Your task to perform on an android device: toggle translation in the chrome app Image 0: 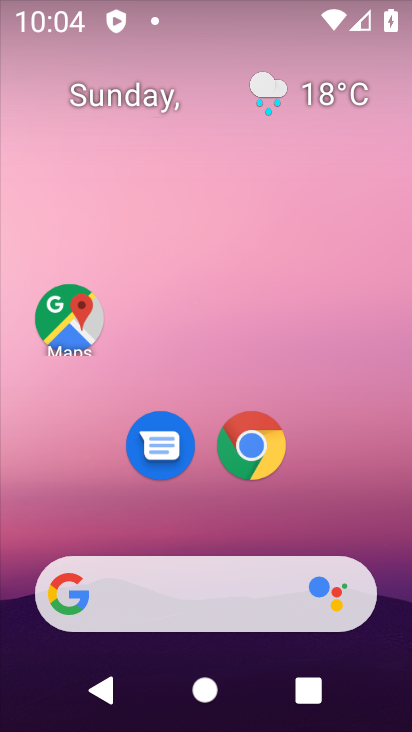
Step 0: click (244, 440)
Your task to perform on an android device: toggle translation in the chrome app Image 1: 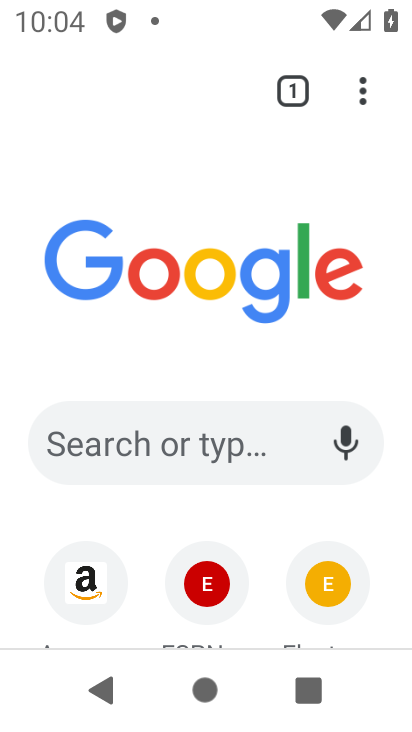
Step 1: click (367, 80)
Your task to perform on an android device: toggle translation in the chrome app Image 2: 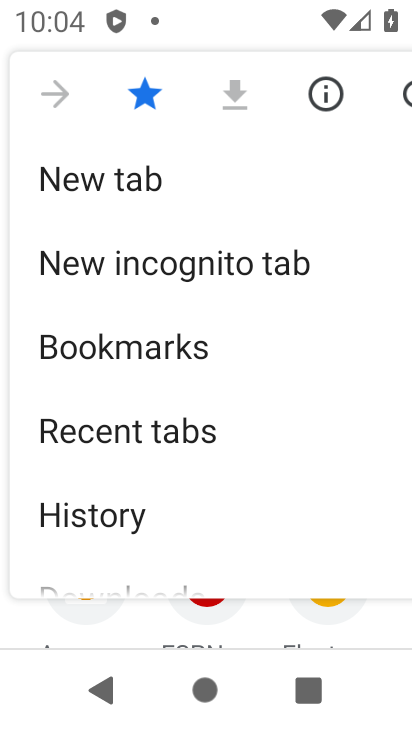
Step 2: drag from (240, 529) to (311, 144)
Your task to perform on an android device: toggle translation in the chrome app Image 3: 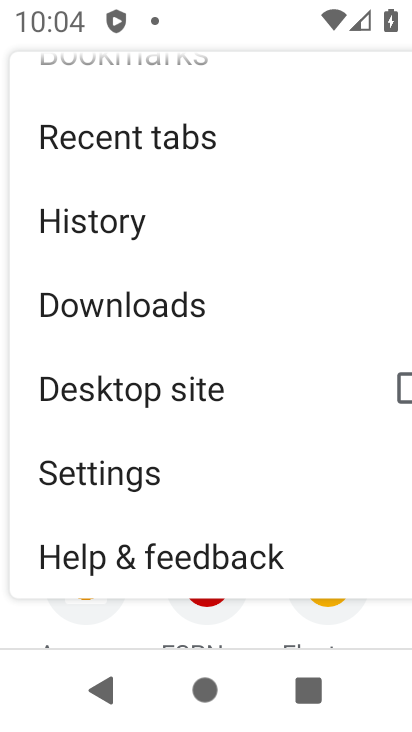
Step 3: click (177, 466)
Your task to perform on an android device: toggle translation in the chrome app Image 4: 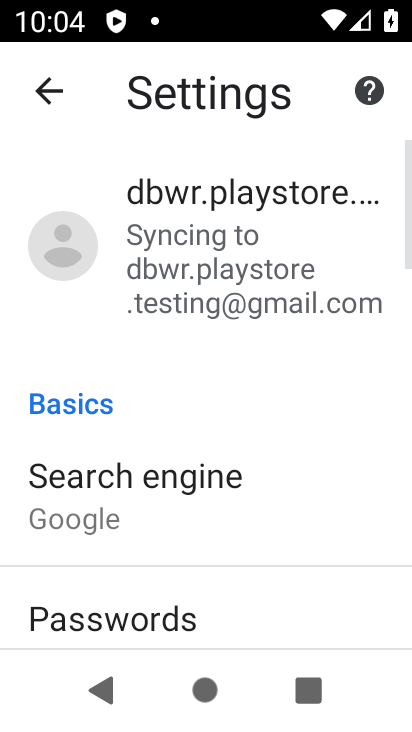
Step 4: drag from (241, 613) to (290, 183)
Your task to perform on an android device: toggle translation in the chrome app Image 5: 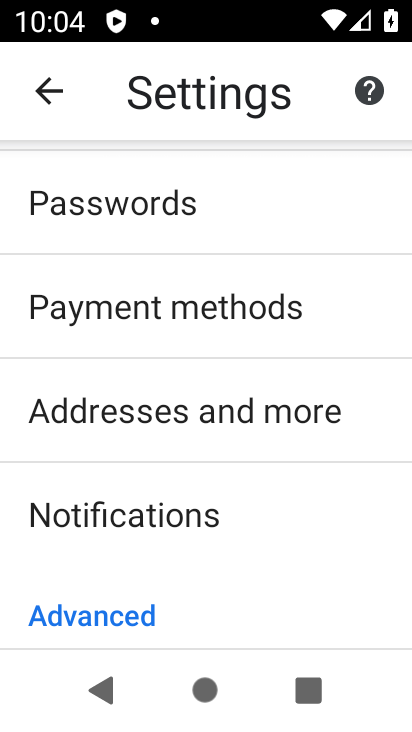
Step 5: drag from (200, 592) to (272, 110)
Your task to perform on an android device: toggle translation in the chrome app Image 6: 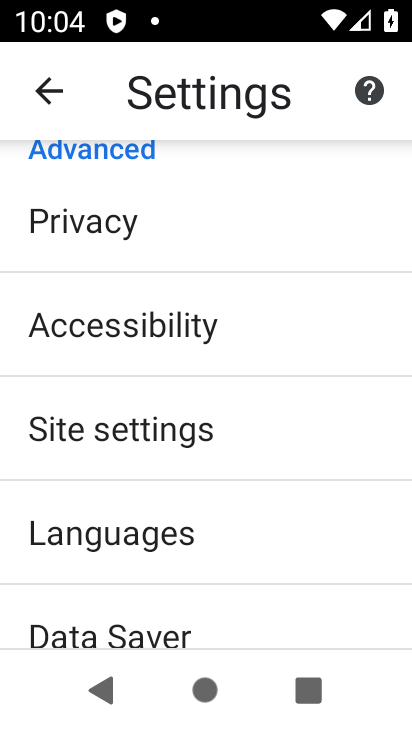
Step 6: click (215, 533)
Your task to perform on an android device: toggle translation in the chrome app Image 7: 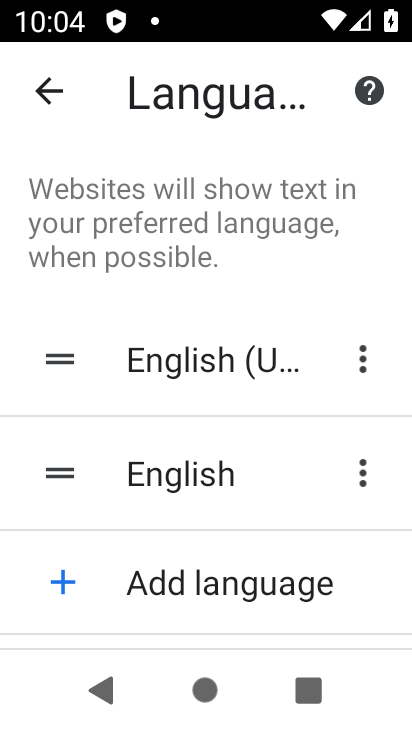
Step 7: drag from (265, 591) to (294, 214)
Your task to perform on an android device: toggle translation in the chrome app Image 8: 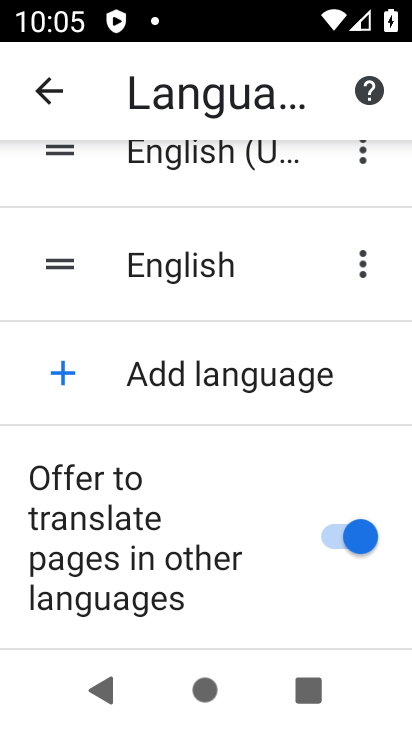
Step 8: click (340, 524)
Your task to perform on an android device: toggle translation in the chrome app Image 9: 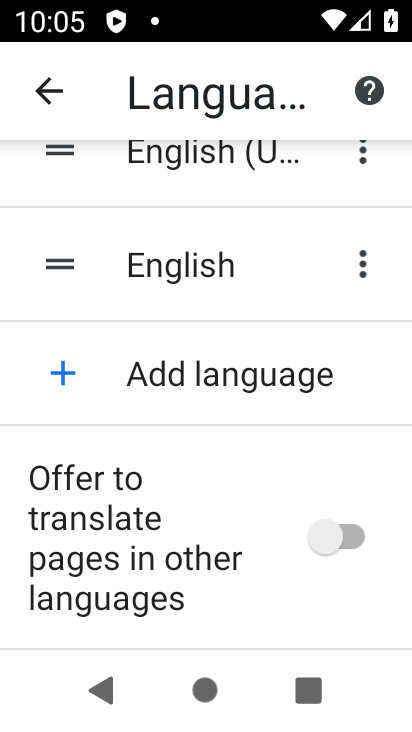
Step 9: task complete